Your task to perform on an android device: change notification settings in the gmail app Image 0: 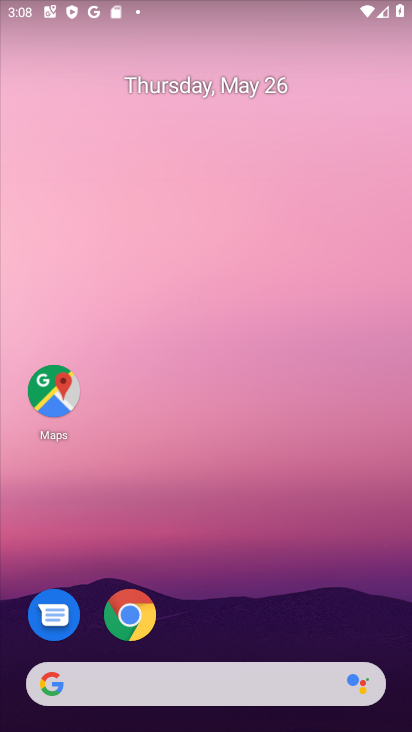
Step 0: drag from (223, 608) to (216, 155)
Your task to perform on an android device: change notification settings in the gmail app Image 1: 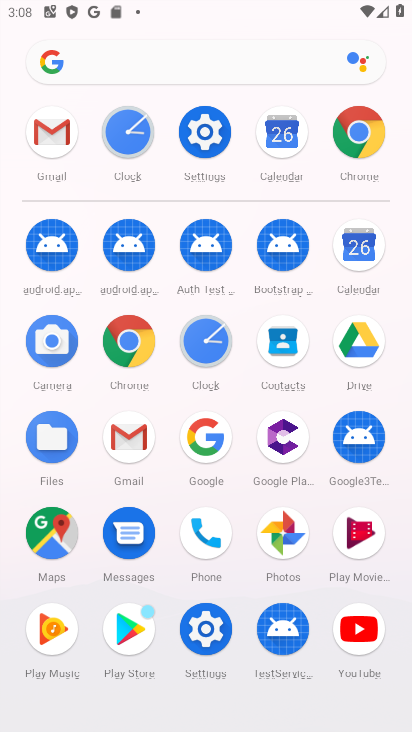
Step 1: click (56, 140)
Your task to perform on an android device: change notification settings in the gmail app Image 2: 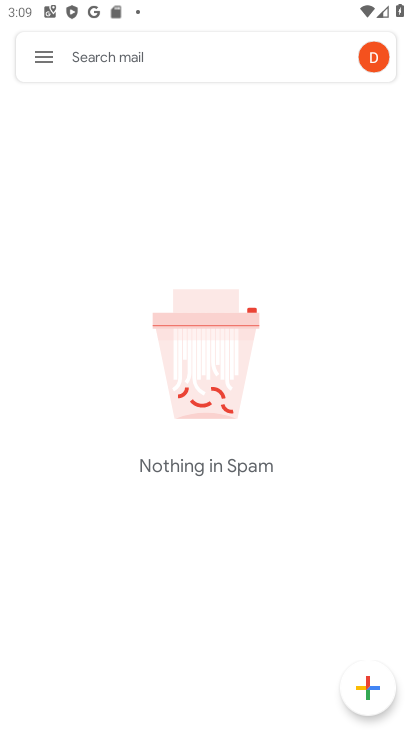
Step 2: click (43, 47)
Your task to perform on an android device: change notification settings in the gmail app Image 3: 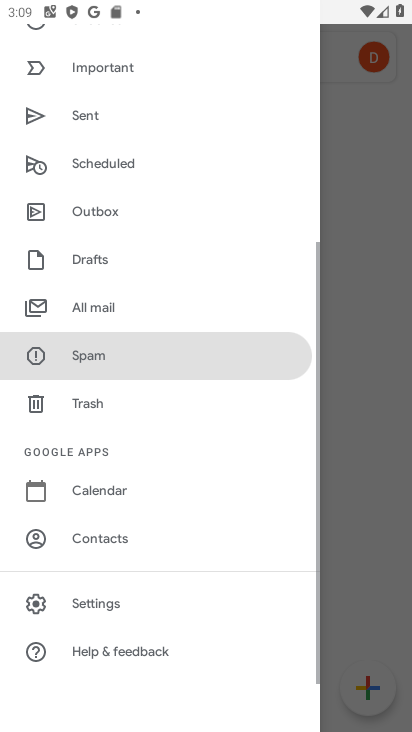
Step 3: click (108, 609)
Your task to perform on an android device: change notification settings in the gmail app Image 4: 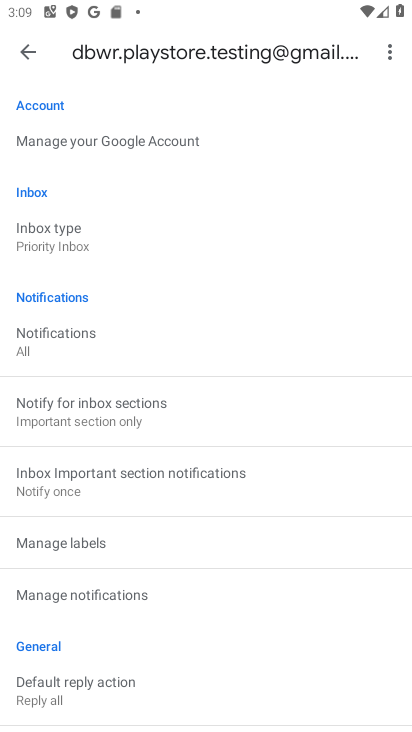
Step 4: click (76, 595)
Your task to perform on an android device: change notification settings in the gmail app Image 5: 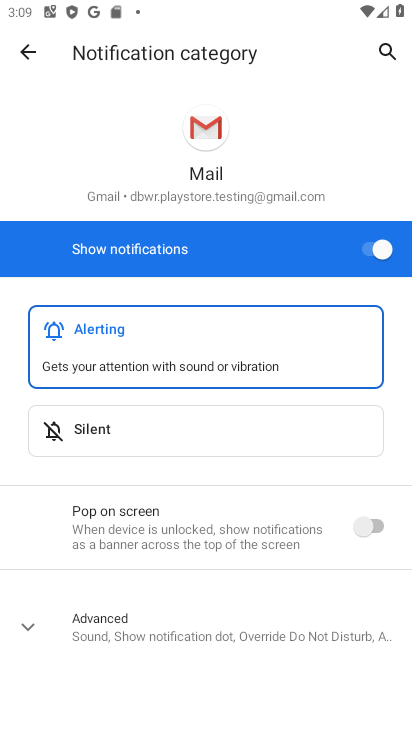
Step 5: click (366, 251)
Your task to perform on an android device: change notification settings in the gmail app Image 6: 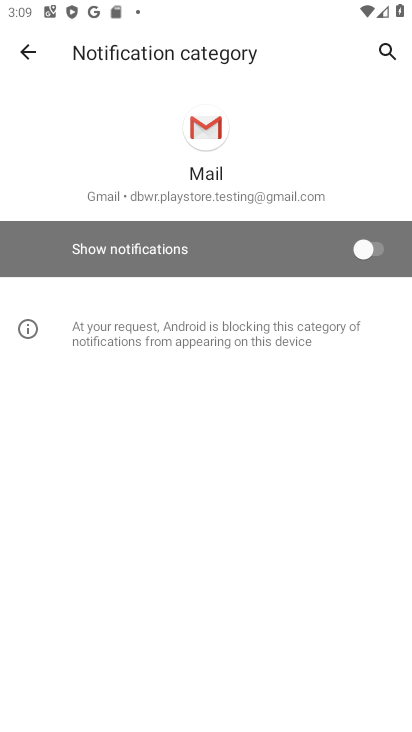
Step 6: task complete